Your task to perform on an android device: turn pop-ups on in chrome Image 0: 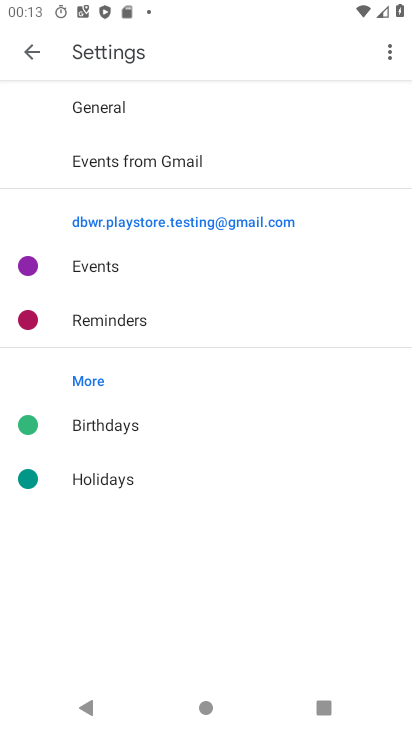
Step 0: press home button
Your task to perform on an android device: turn pop-ups on in chrome Image 1: 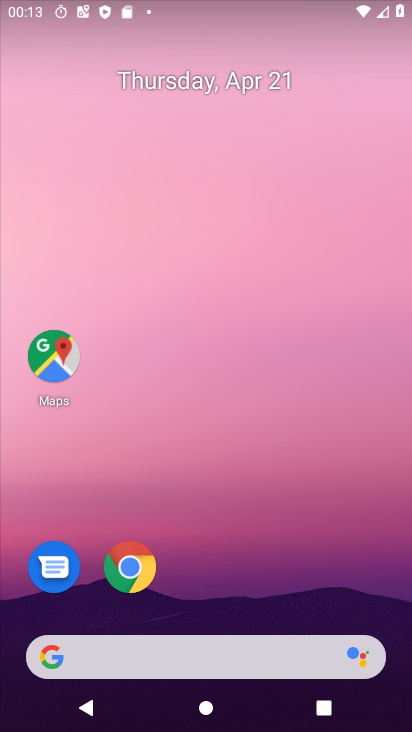
Step 1: drag from (213, 591) to (269, 144)
Your task to perform on an android device: turn pop-ups on in chrome Image 2: 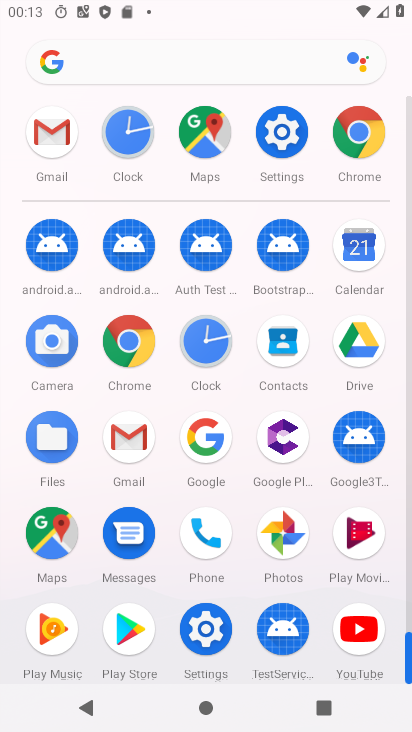
Step 2: click (355, 131)
Your task to perform on an android device: turn pop-ups on in chrome Image 3: 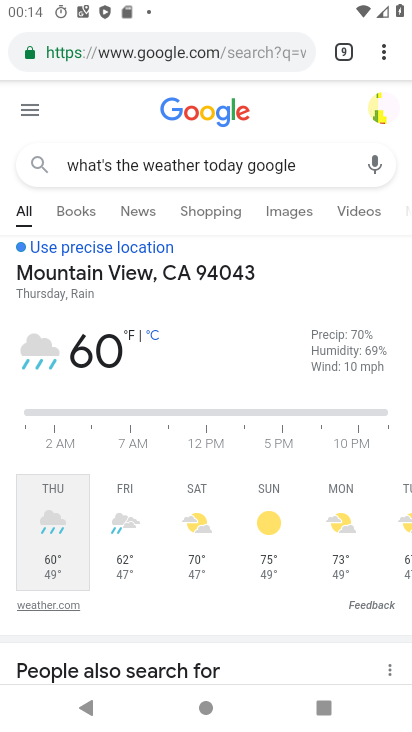
Step 3: click (371, 45)
Your task to perform on an android device: turn pop-ups on in chrome Image 4: 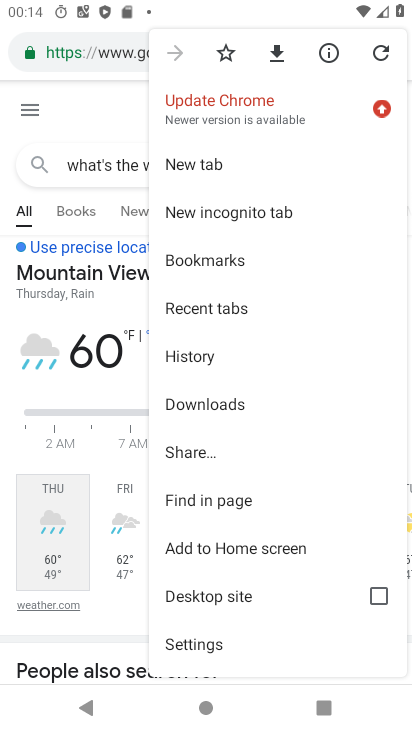
Step 4: click (237, 650)
Your task to perform on an android device: turn pop-ups on in chrome Image 5: 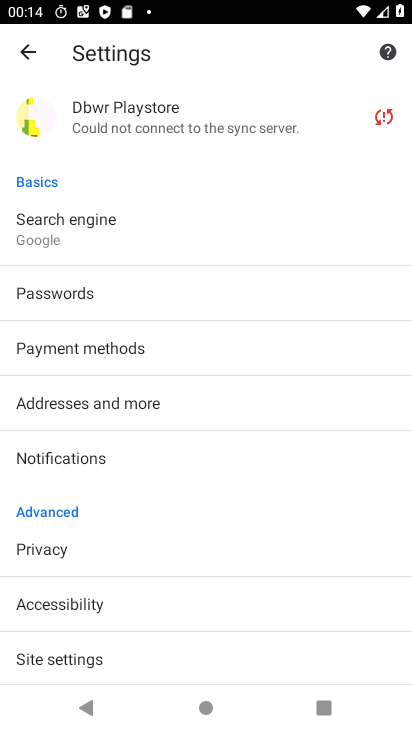
Step 5: drag from (223, 559) to (257, 287)
Your task to perform on an android device: turn pop-ups on in chrome Image 6: 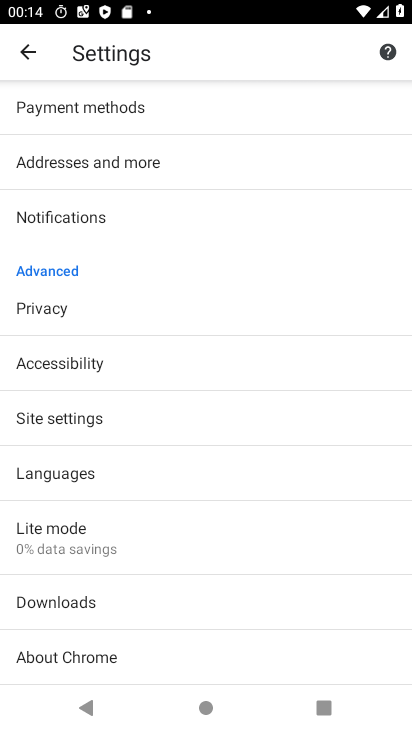
Step 6: click (120, 421)
Your task to perform on an android device: turn pop-ups on in chrome Image 7: 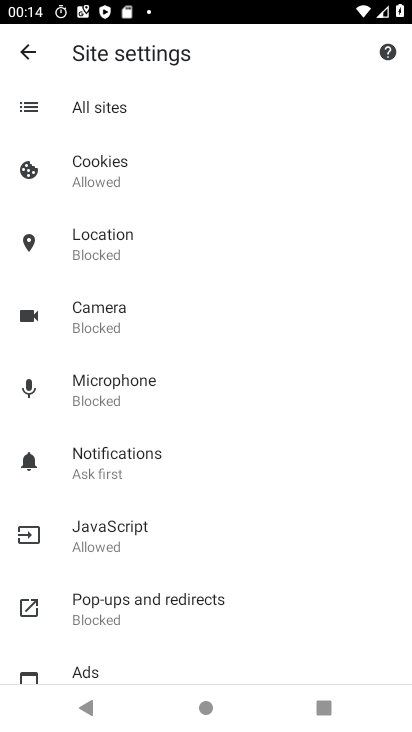
Step 7: click (177, 601)
Your task to perform on an android device: turn pop-ups on in chrome Image 8: 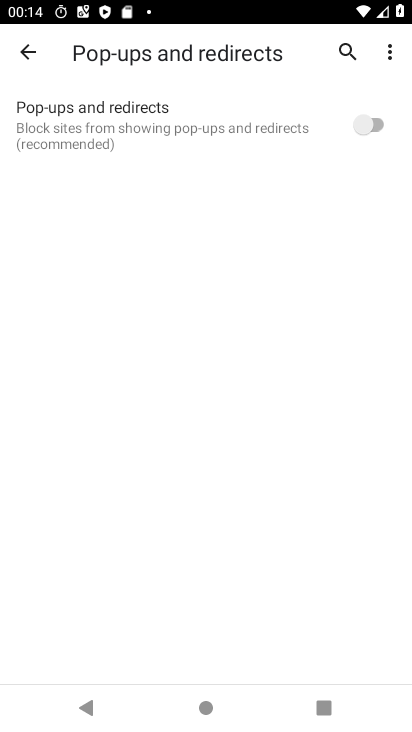
Step 8: click (385, 127)
Your task to perform on an android device: turn pop-ups on in chrome Image 9: 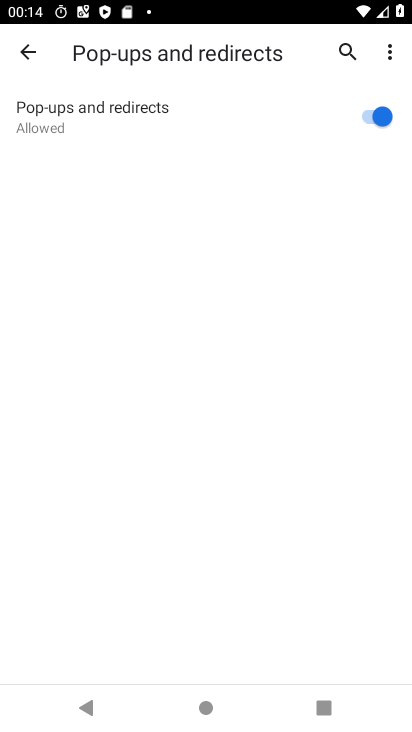
Step 9: task complete